Your task to perform on an android device: remove spam from my inbox in the gmail app Image 0: 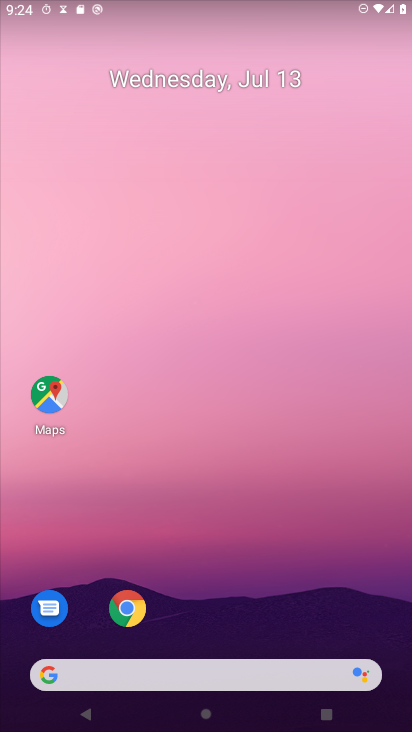
Step 0: drag from (250, 537) to (218, 234)
Your task to perform on an android device: remove spam from my inbox in the gmail app Image 1: 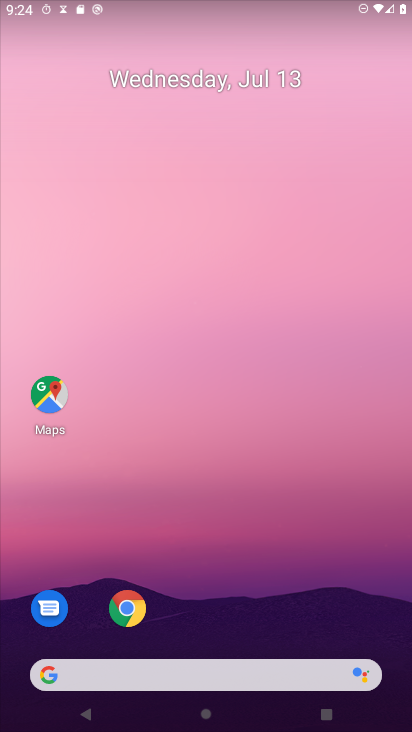
Step 1: press back button
Your task to perform on an android device: remove spam from my inbox in the gmail app Image 2: 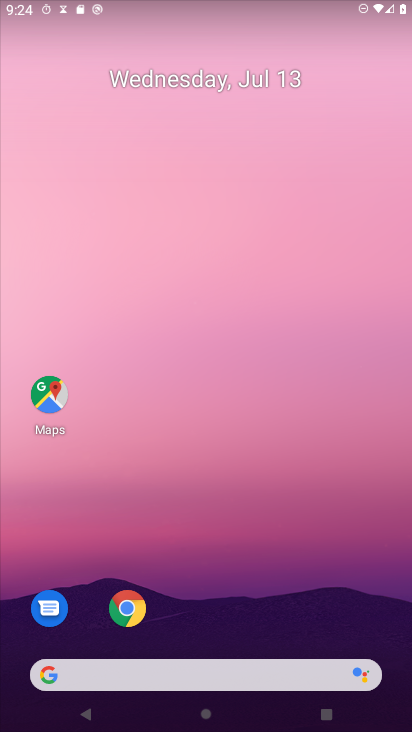
Step 2: drag from (241, 566) to (219, 232)
Your task to perform on an android device: remove spam from my inbox in the gmail app Image 3: 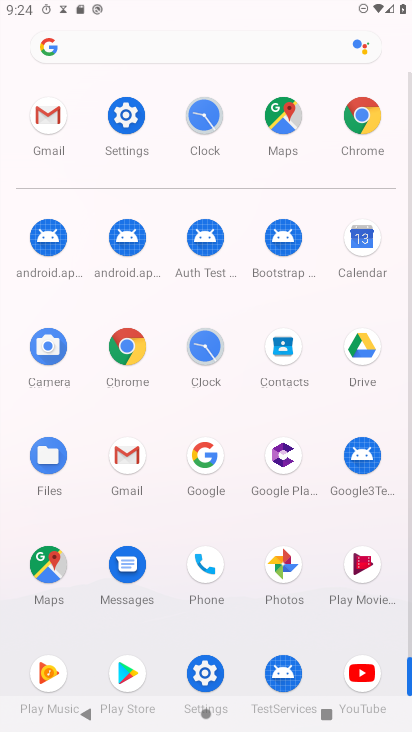
Step 3: click (108, 454)
Your task to perform on an android device: remove spam from my inbox in the gmail app Image 4: 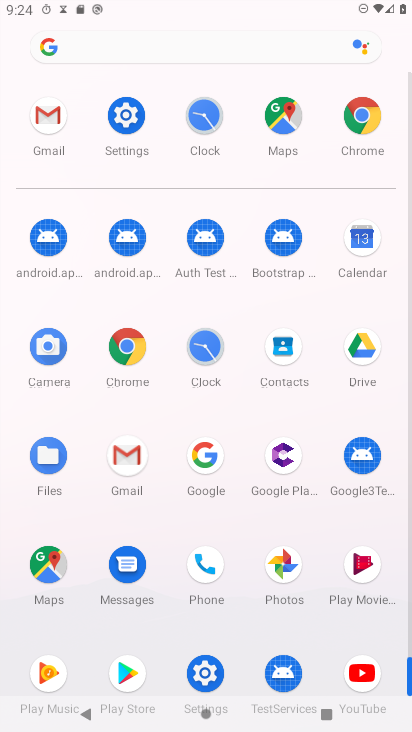
Step 4: click (115, 457)
Your task to perform on an android device: remove spam from my inbox in the gmail app Image 5: 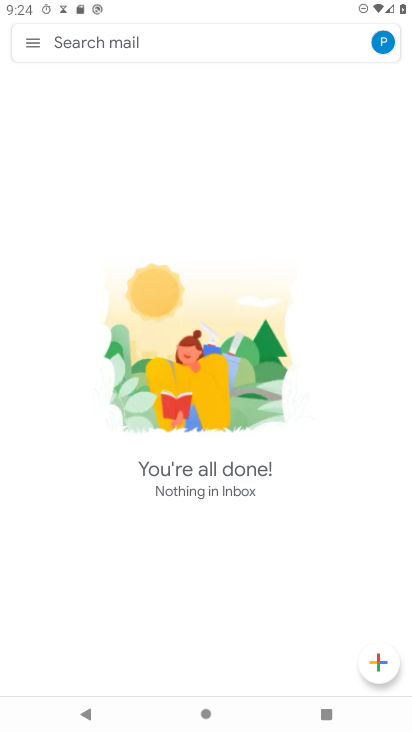
Step 5: click (127, 446)
Your task to perform on an android device: remove spam from my inbox in the gmail app Image 6: 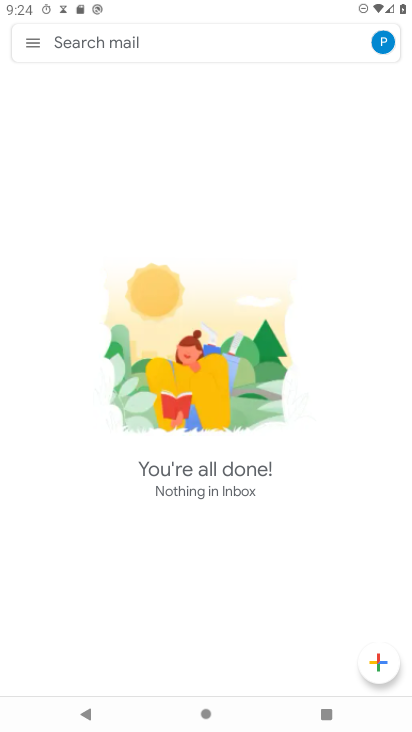
Step 6: click (131, 445)
Your task to perform on an android device: remove spam from my inbox in the gmail app Image 7: 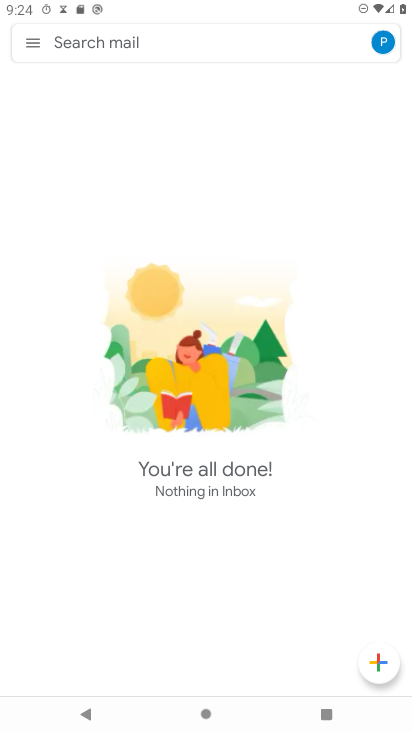
Step 7: click (25, 50)
Your task to perform on an android device: remove spam from my inbox in the gmail app Image 8: 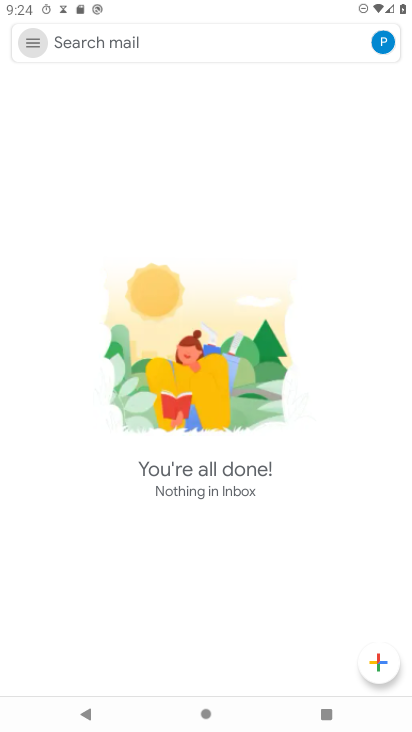
Step 8: click (25, 50)
Your task to perform on an android device: remove spam from my inbox in the gmail app Image 9: 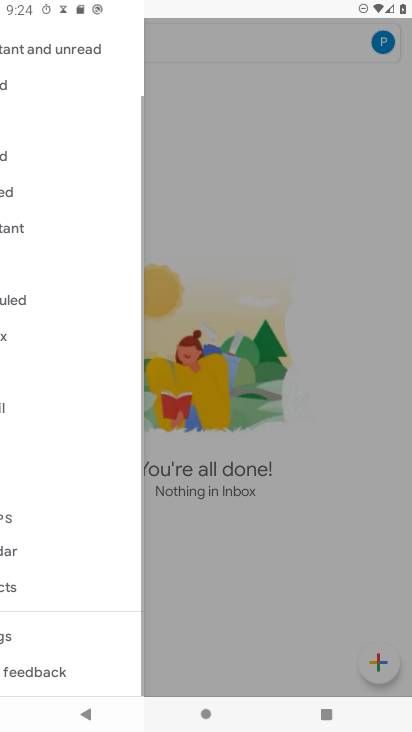
Step 9: click (28, 49)
Your task to perform on an android device: remove spam from my inbox in the gmail app Image 10: 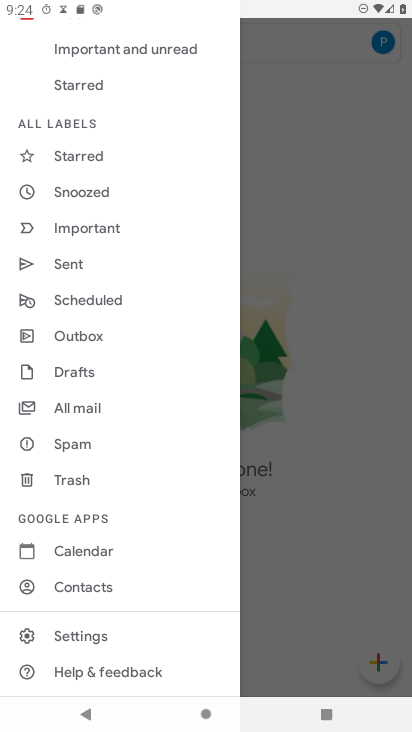
Step 10: click (75, 451)
Your task to perform on an android device: remove spam from my inbox in the gmail app Image 11: 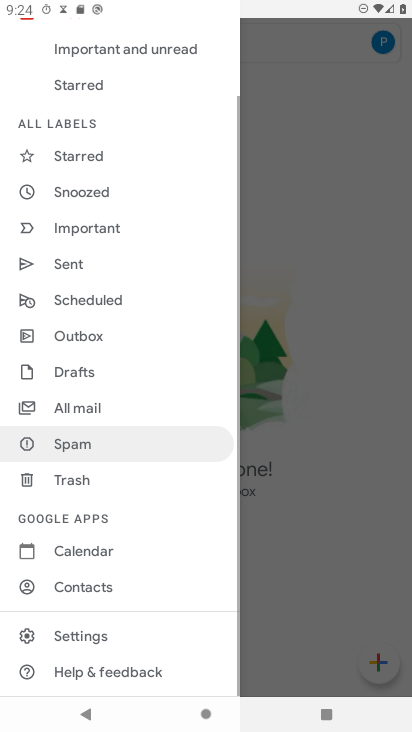
Step 11: click (75, 451)
Your task to perform on an android device: remove spam from my inbox in the gmail app Image 12: 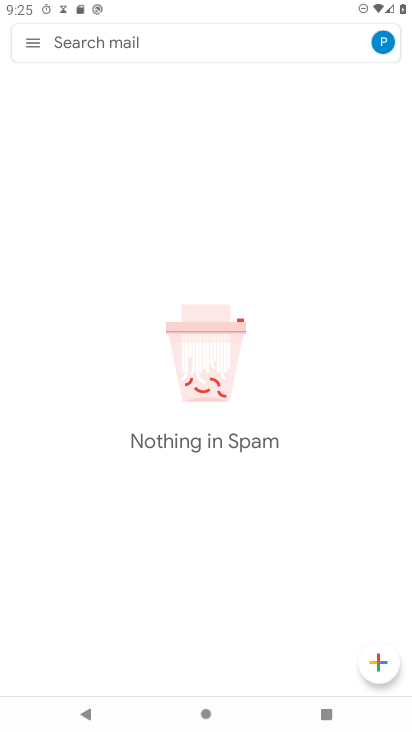
Step 12: task complete